Your task to perform on an android device: open device folders in google photos Image 0: 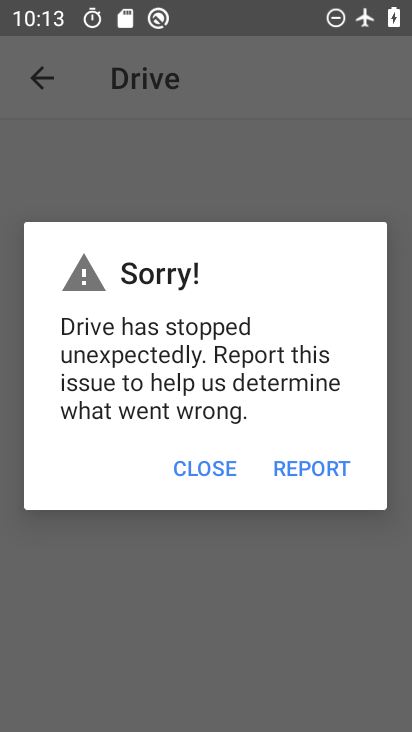
Step 0: press home button
Your task to perform on an android device: open device folders in google photos Image 1: 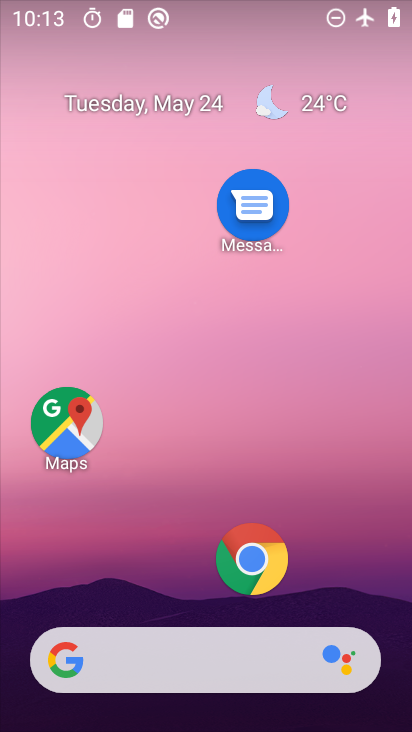
Step 1: drag from (179, 567) to (141, 165)
Your task to perform on an android device: open device folders in google photos Image 2: 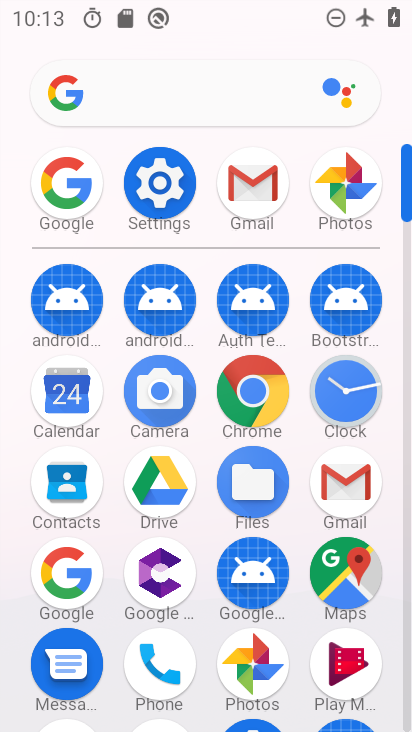
Step 2: click (339, 187)
Your task to perform on an android device: open device folders in google photos Image 3: 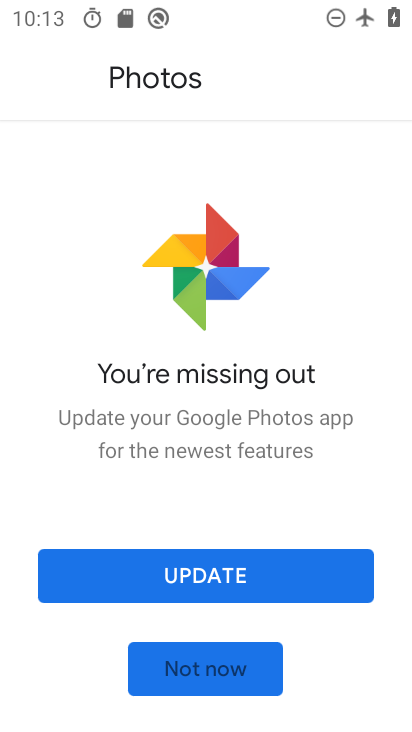
Step 3: click (244, 675)
Your task to perform on an android device: open device folders in google photos Image 4: 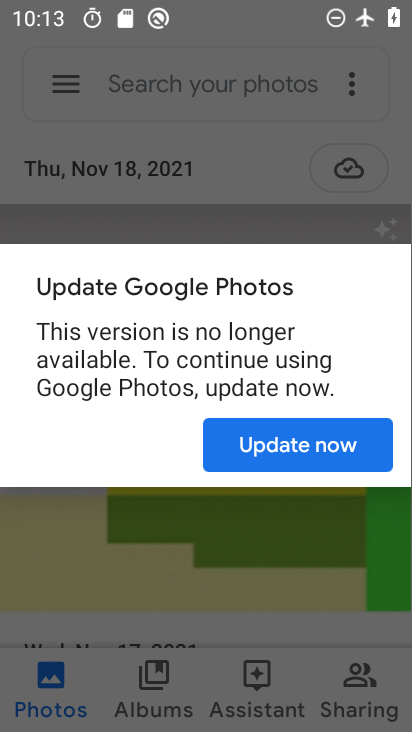
Step 4: click (253, 446)
Your task to perform on an android device: open device folders in google photos Image 5: 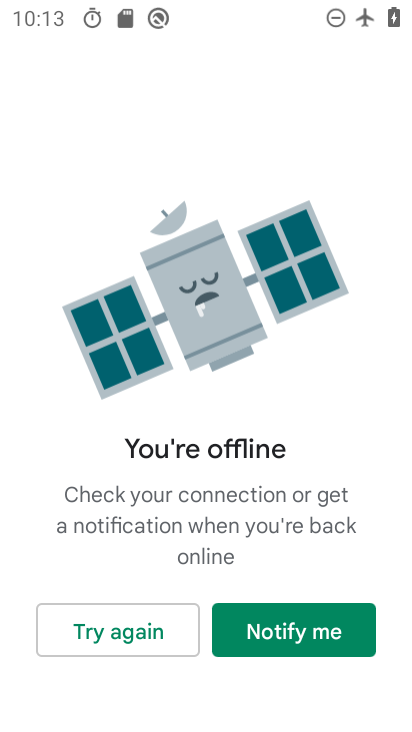
Step 5: press back button
Your task to perform on an android device: open device folders in google photos Image 6: 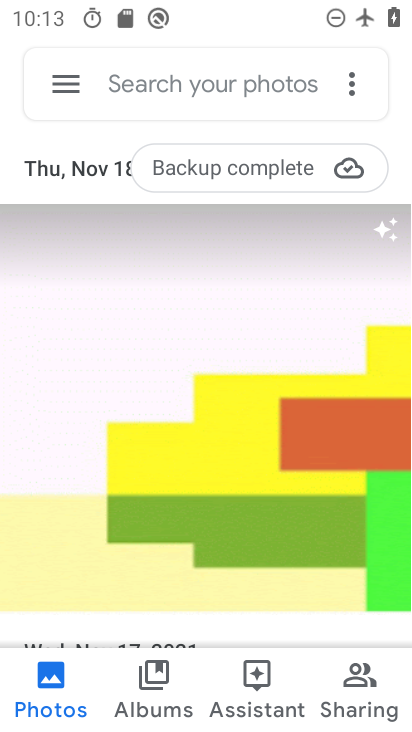
Step 6: click (70, 89)
Your task to perform on an android device: open device folders in google photos Image 7: 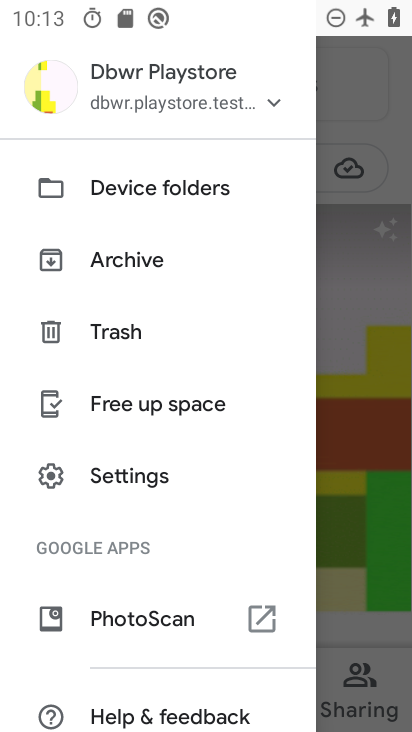
Step 7: click (126, 188)
Your task to perform on an android device: open device folders in google photos Image 8: 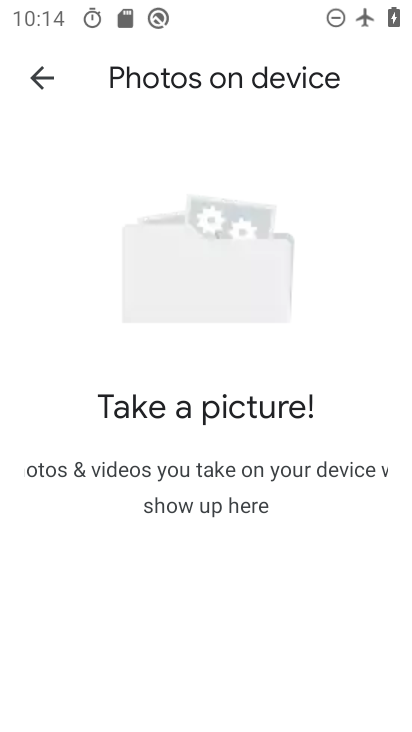
Step 8: task complete